Your task to perform on an android device: turn notification dots off Image 0: 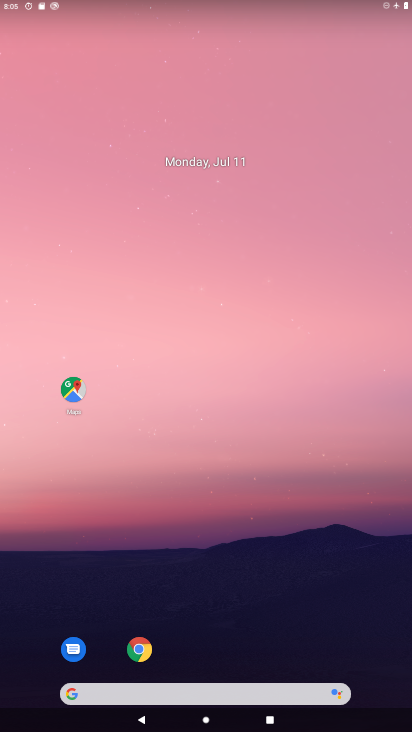
Step 0: drag from (260, 692) to (214, 42)
Your task to perform on an android device: turn notification dots off Image 1: 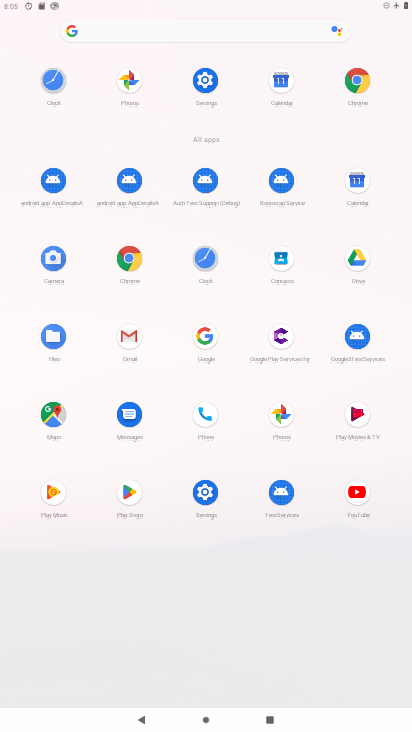
Step 1: click (209, 78)
Your task to perform on an android device: turn notification dots off Image 2: 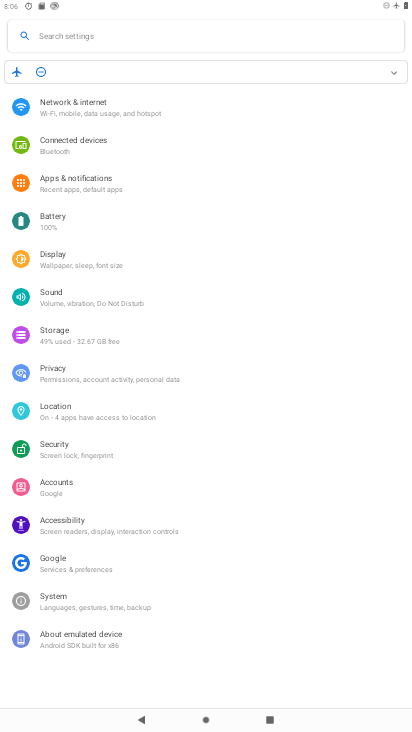
Step 2: click (94, 179)
Your task to perform on an android device: turn notification dots off Image 3: 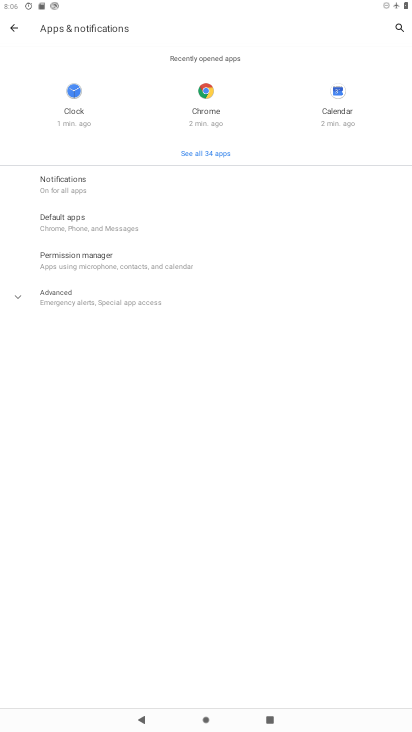
Step 3: click (79, 183)
Your task to perform on an android device: turn notification dots off Image 4: 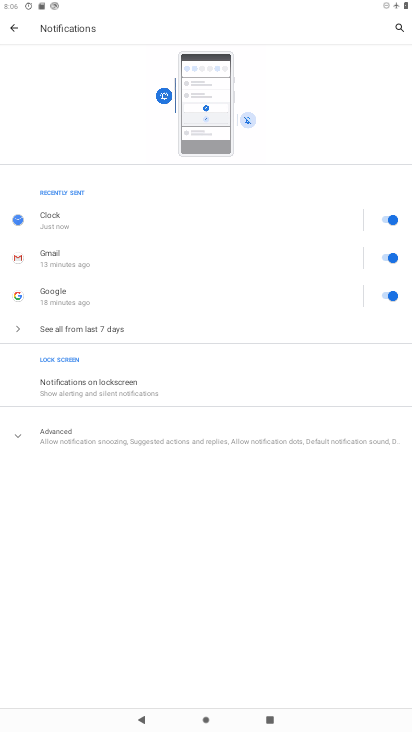
Step 4: click (95, 441)
Your task to perform on an android device: turn notification dots off Image 5: 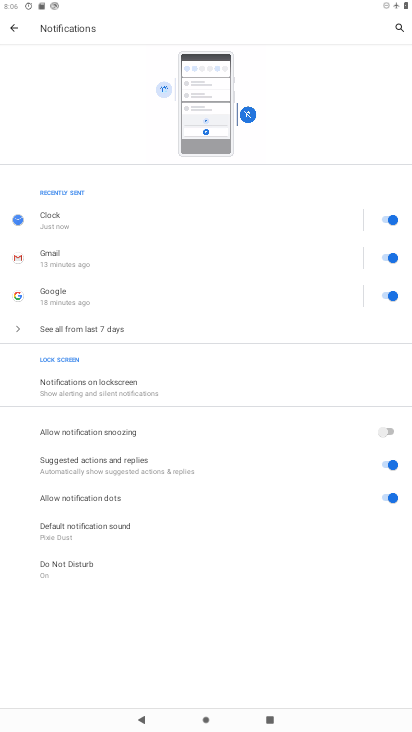
Step 5: click (382, 496)
Your task to perform on an android device: turn notification dots off Image 6: 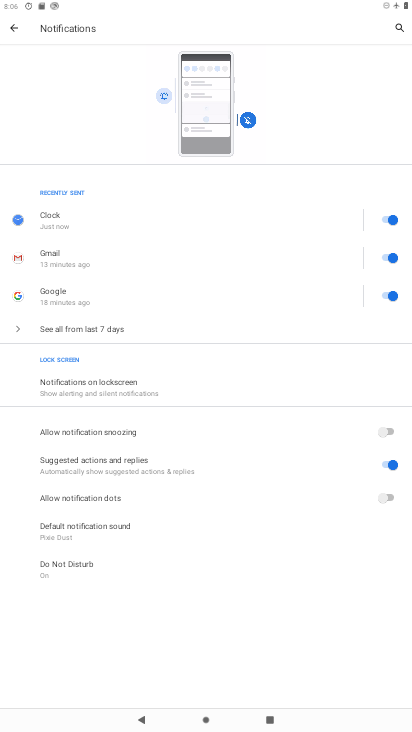
Step 6: task complete